Your task to perform on an android device: Turn off the flashlight Image 0: 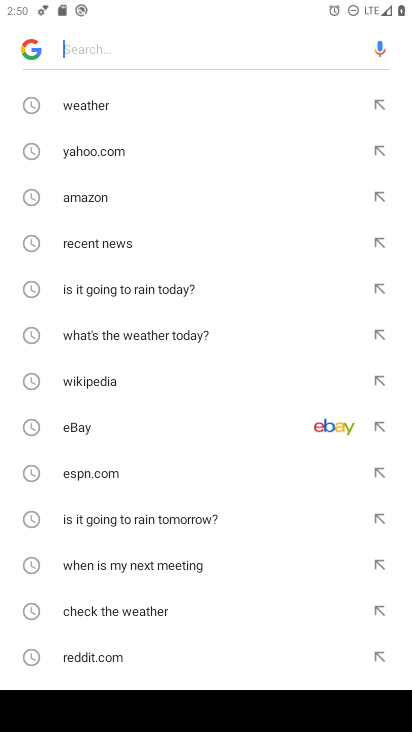
Step 0: press home button
Your task to perform on an android device: Turn off the flashlight Image 1: 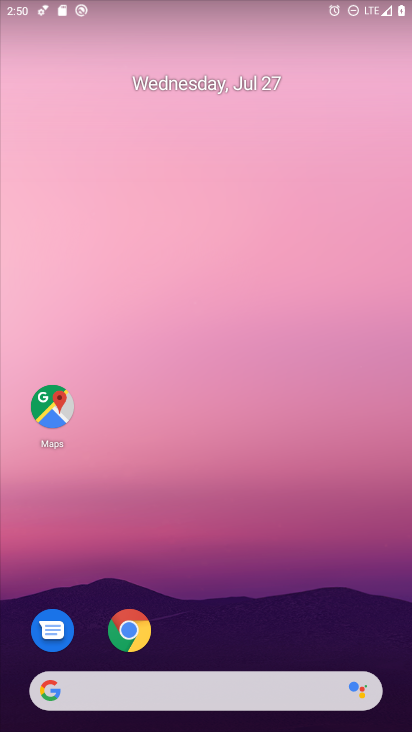
Step 1: click (219, 22)
Your task to perform on an android device: Turn off the flashlight Image 2: 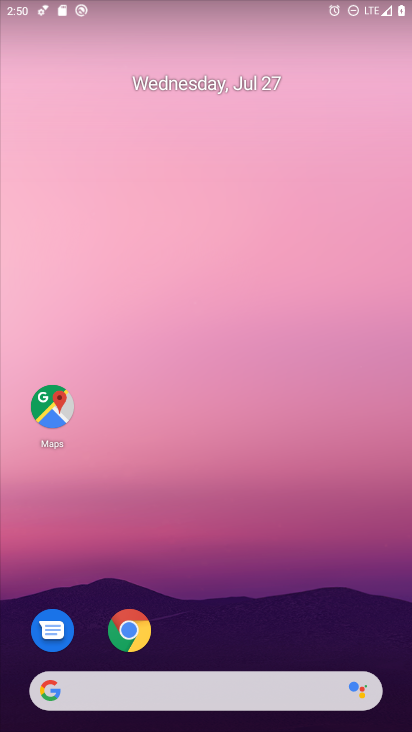
Step 2: drag from (219, 12) to (279, 309)
Your task to perform on an android device: Turn off the flashlight Image 3: 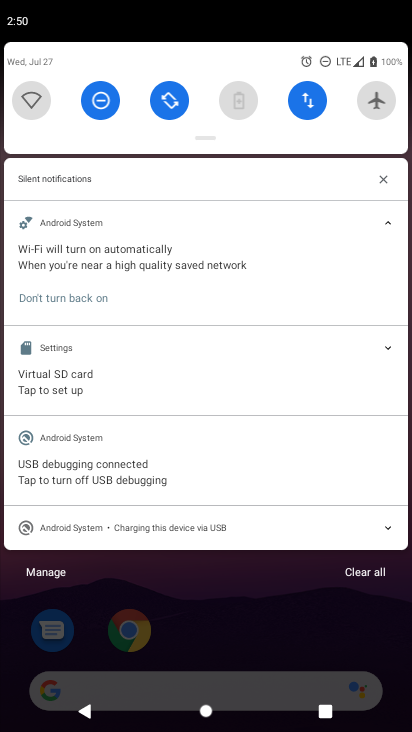
Step 3: drag from (202, 142) to (206, 416)
Your task to perform on an android device: Turn off the flashlight Image 4: 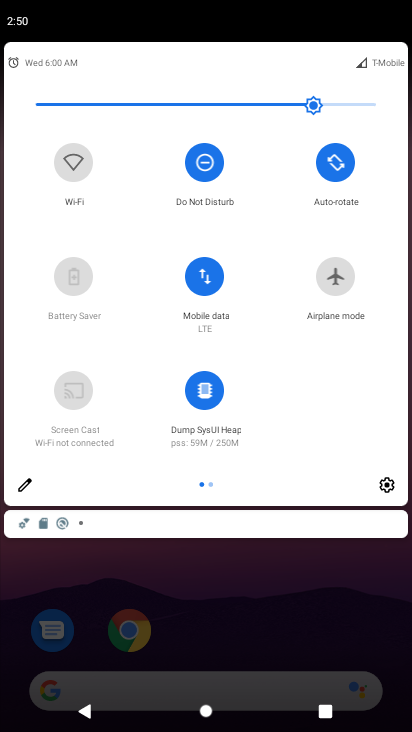
Step 4: click (24, 484)
Your task to perform on an android device: Turn off the flashlight Image 5: 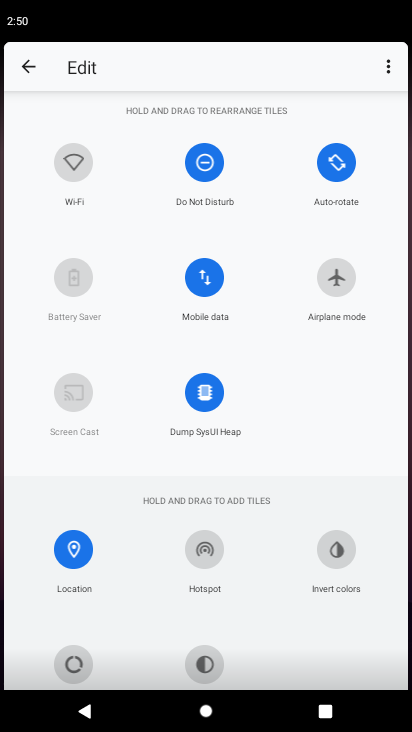
Step 5: task complete